Your task to perform on an android device: Open Google Image 0: 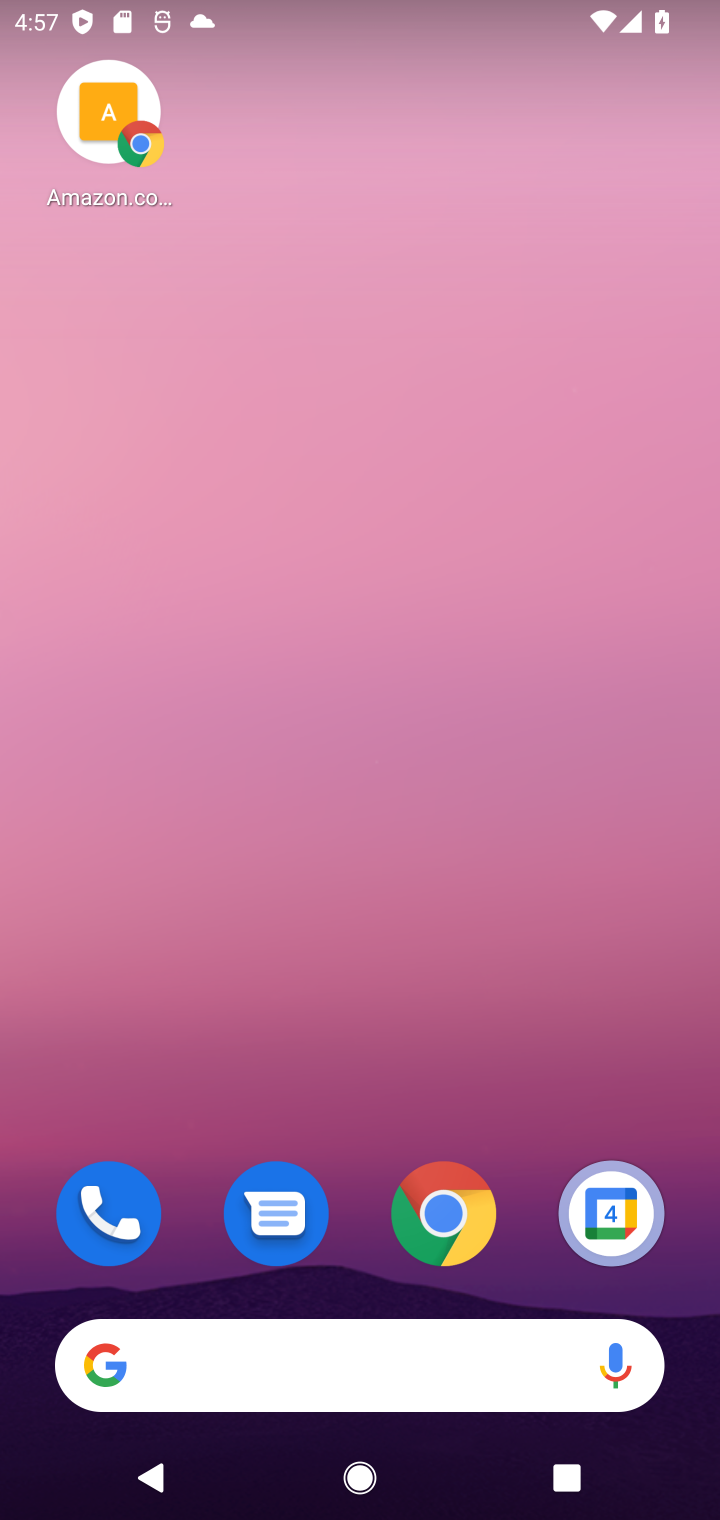
Step 0: press home button
Your task to perform on an android device: Open Google Image 1: 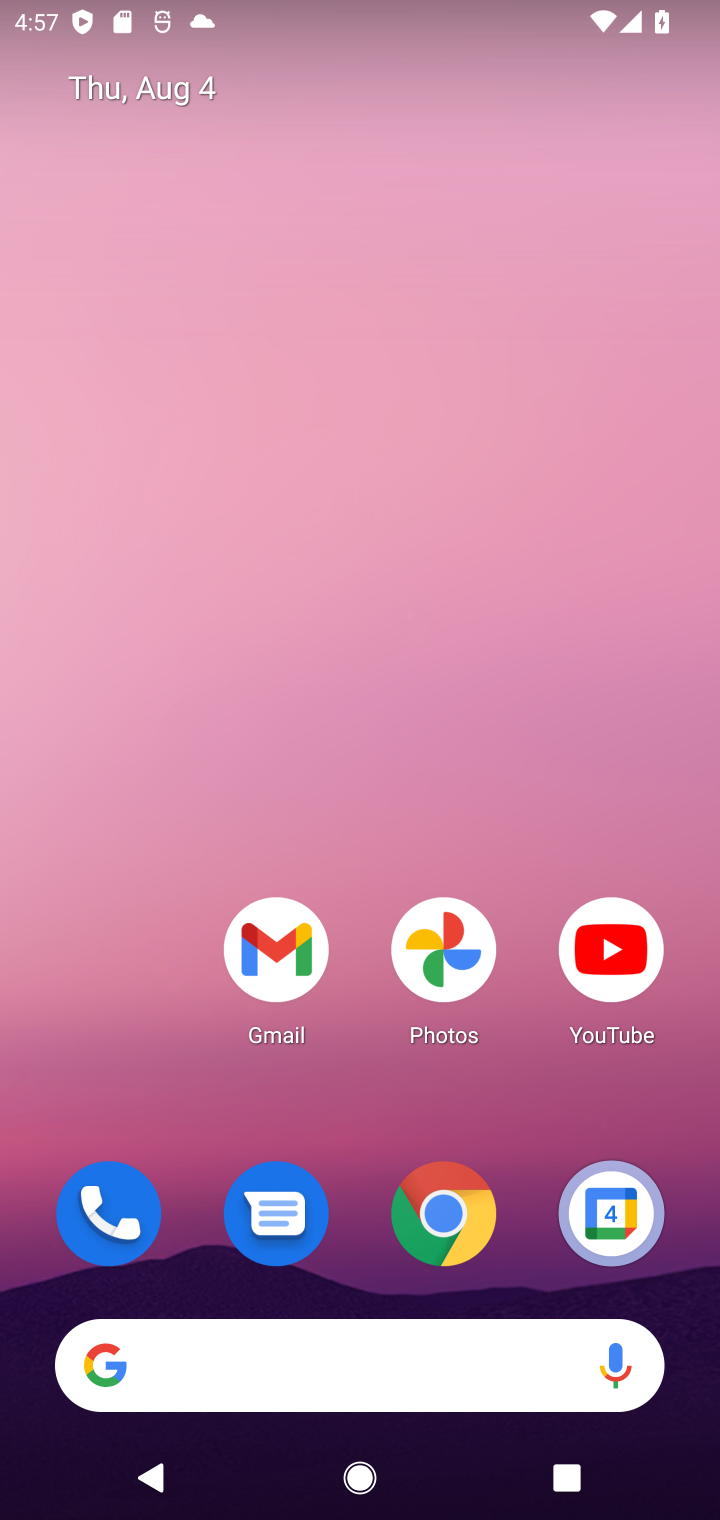
Step 1: drag from (318, 1352) to (395, 186)
Your task to perform on an android device: Open Google Image 2: 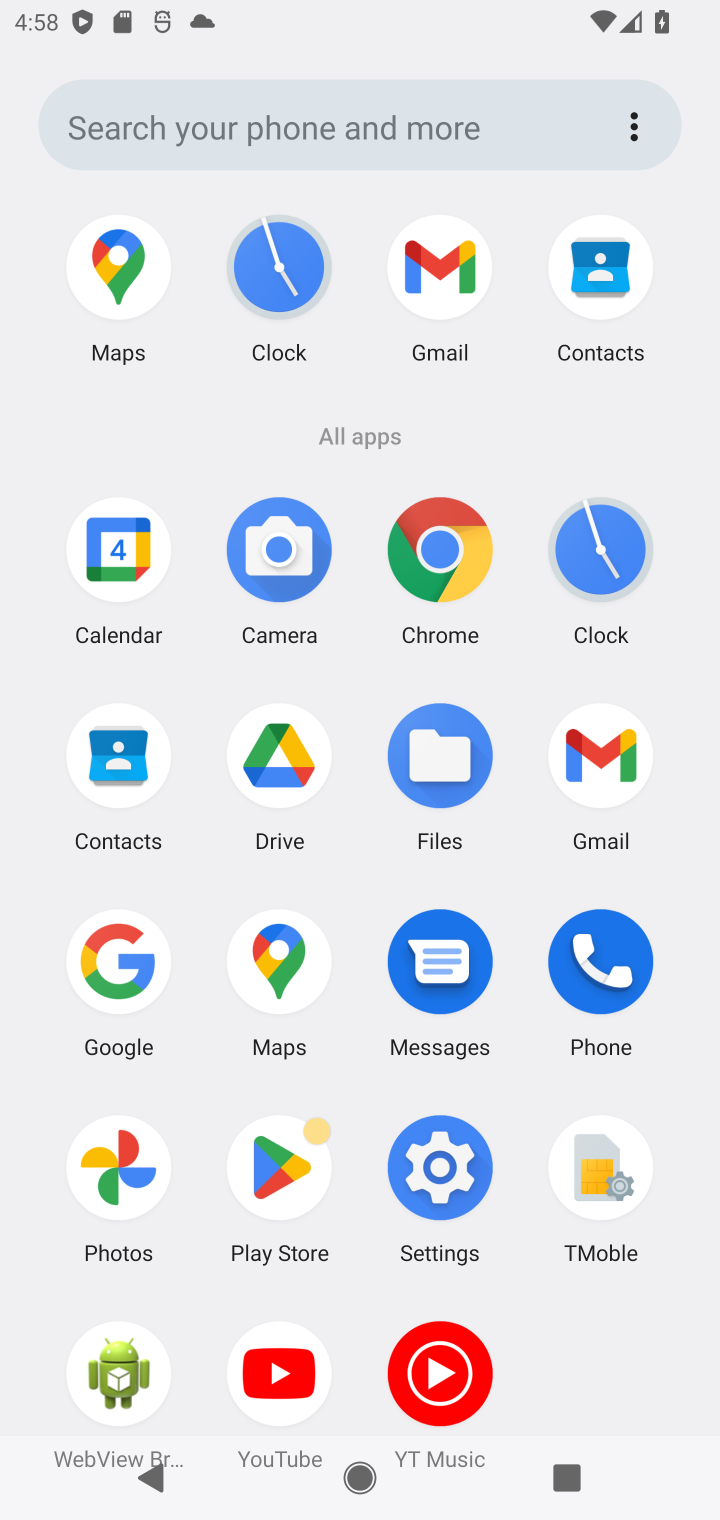
Step 2: click (118, 956)
Your task to perform on an android device: Open Google Image 3: 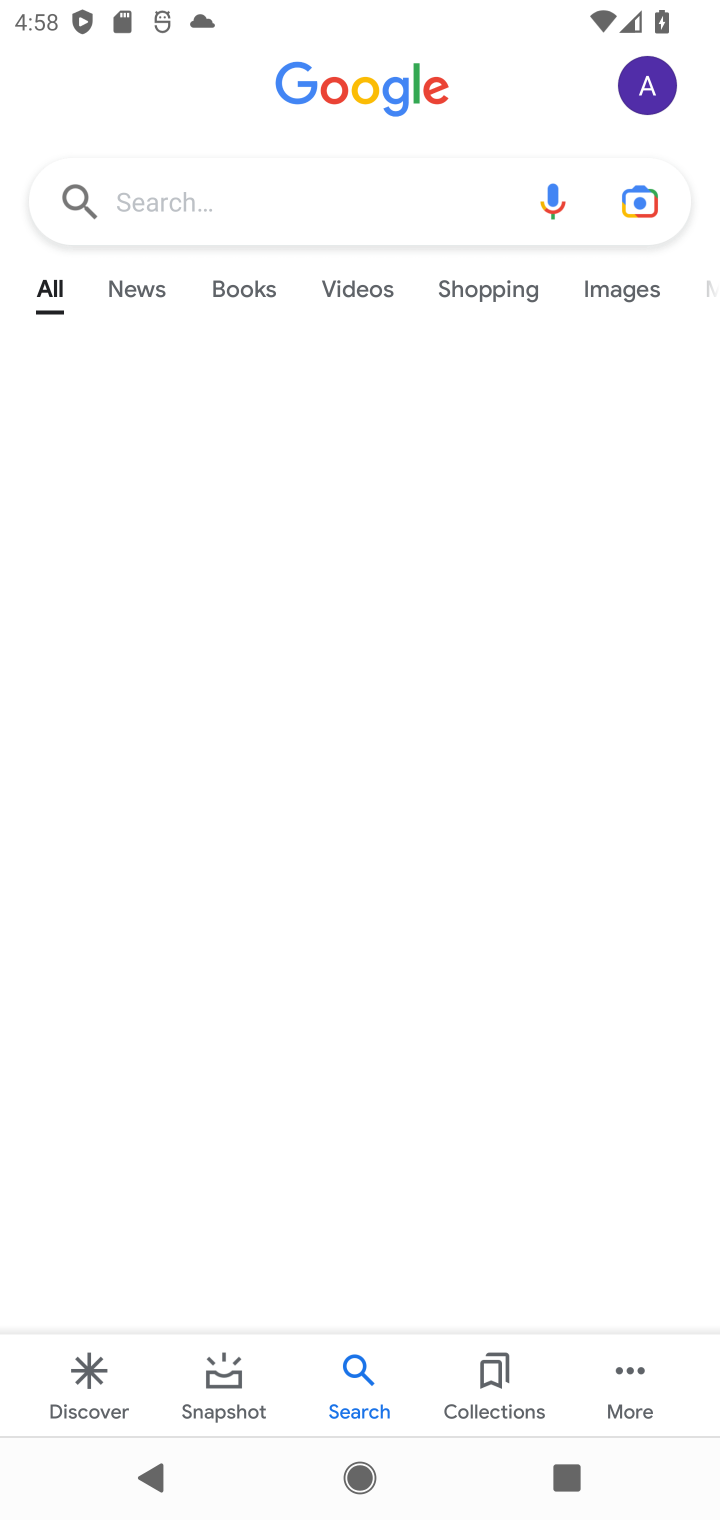
Step 3: task complete